Your task to perform on an android device: Go to location settings Image 0: 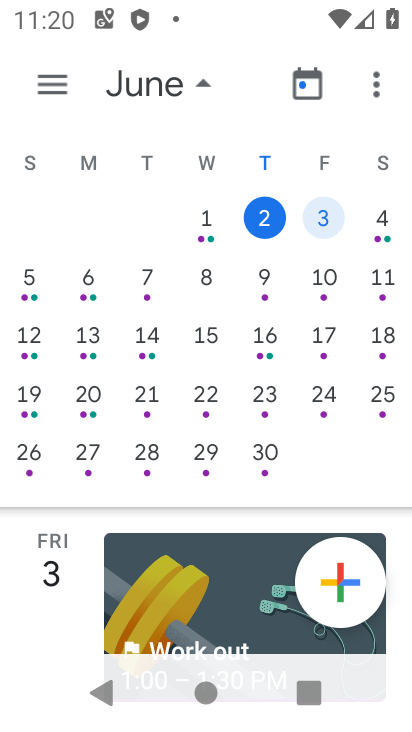
Step 0: press home button
Your task to perform on an android device: Go to location settings Image 1: 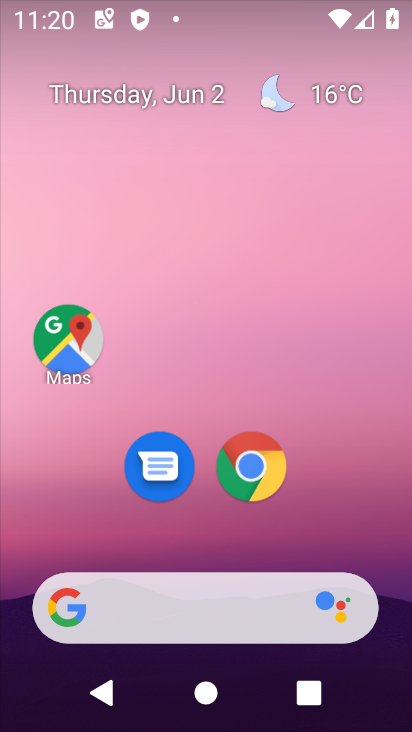
Step 1: drag from (208, 553) to (200, 119)
Your task to perform on an android device: Go to location settings Image 2: 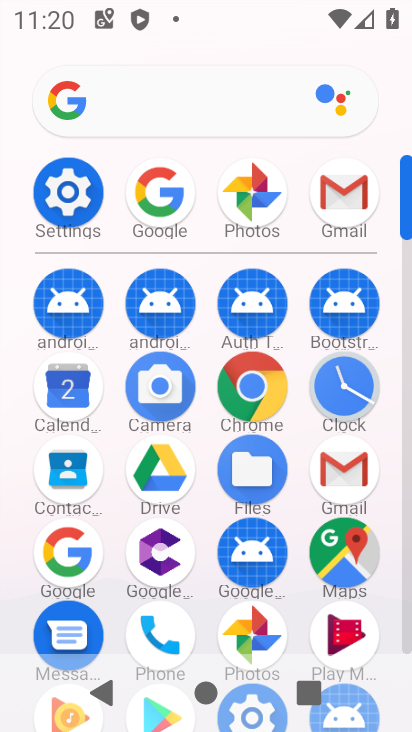
Step 2: click (66, 213)
Your task to perform on an android device: Go to location settings Image 3: 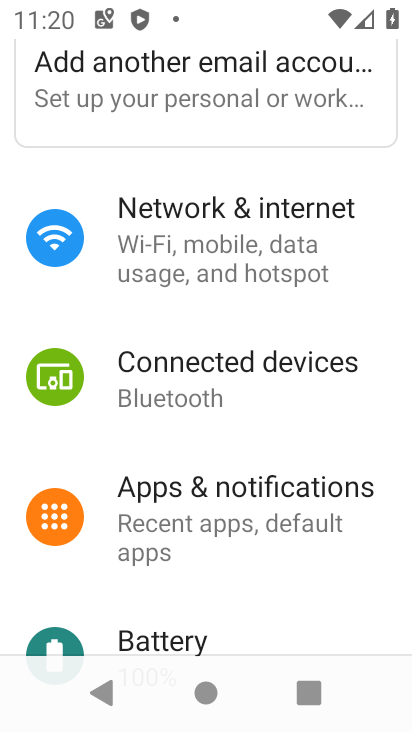
Step 3: drag from (258, 543) to (258, 273)
Your task to perform on an android device: Go to location settings Image 4: 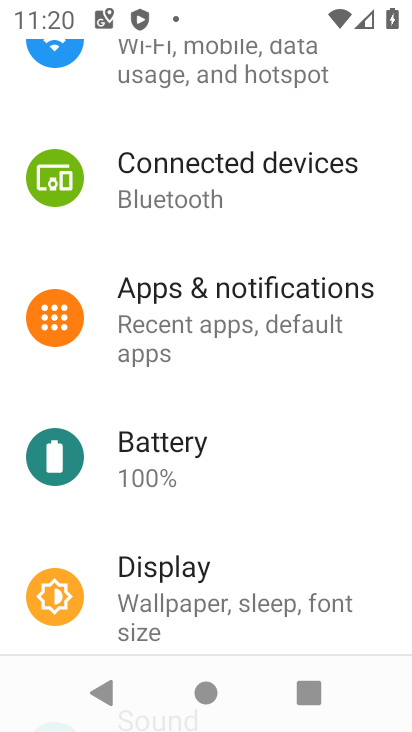
Step 4: drag from (261, 558) to (264, 344)
Your task to perform on an android device: Go to location settings Image 5: 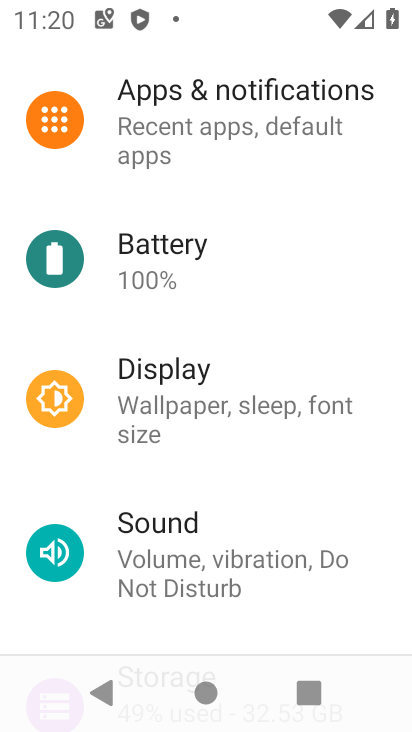
Step 5: drag from (264, 553) to (269, 240)
Your task to perform on an android device: Go to location settings Image 6: 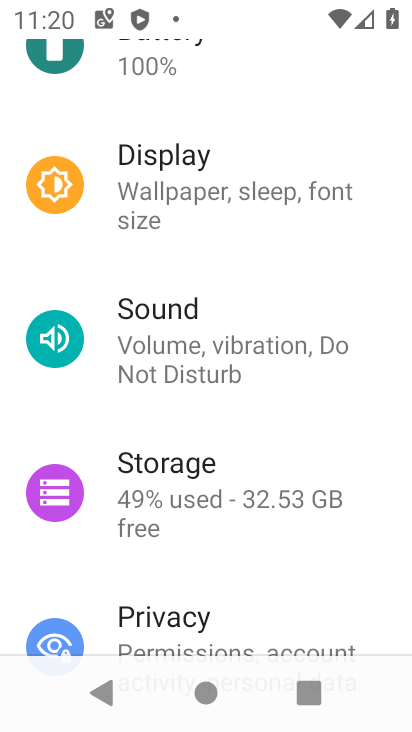
Step 6: drag from (220, 545) to (227, 267)
Your task to perform on an android device: Go to location settings Image 7: 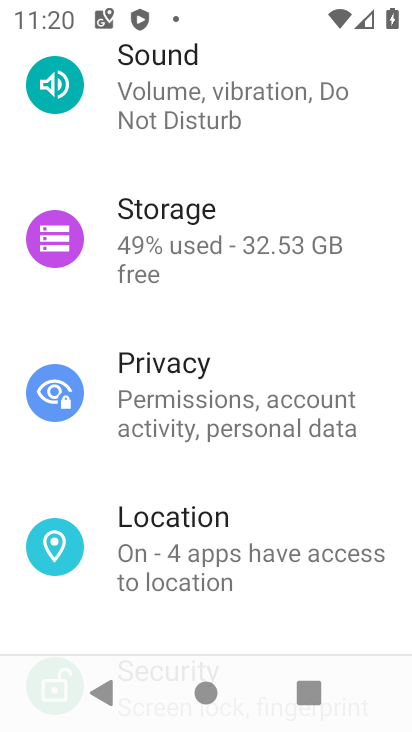
Step 7: click (233, 530)
Your task to perform on an android device: Go to location settings Image 8: 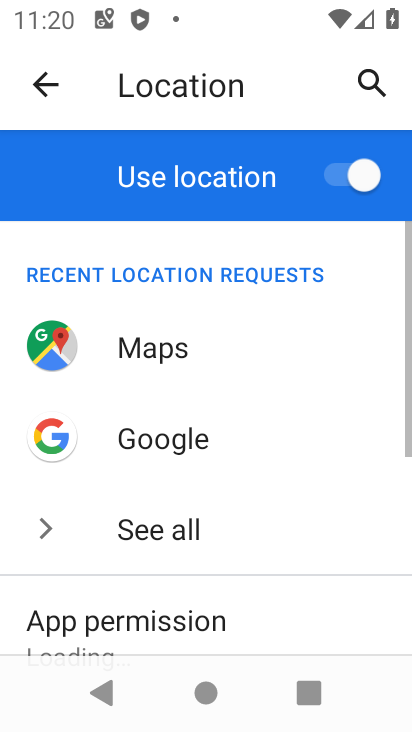
Step 8: task complete